Your task to perform on an android device: snooze an email in the gmail app Image 0: 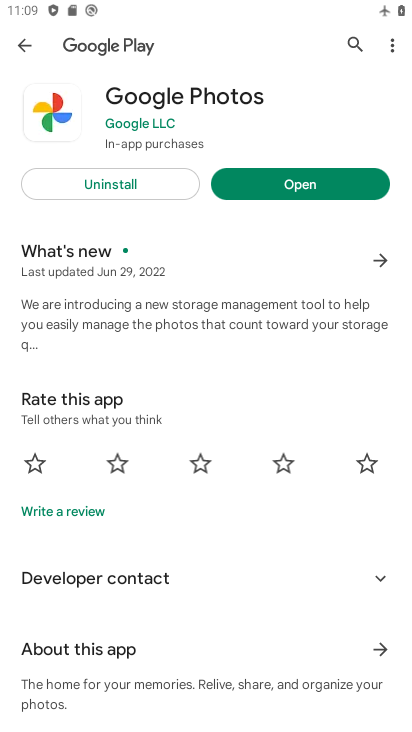
Step 0: press home button
Your task to perform on an android device: snooze an email in the gmail app Image 1: 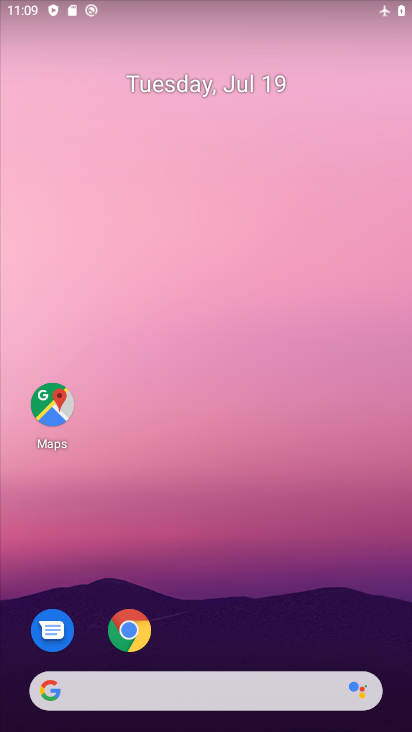
Step 1: drag from (203, 621) to (199, 244)
Your task to perform on an android device: snooze an email in the gmail app Image 2: 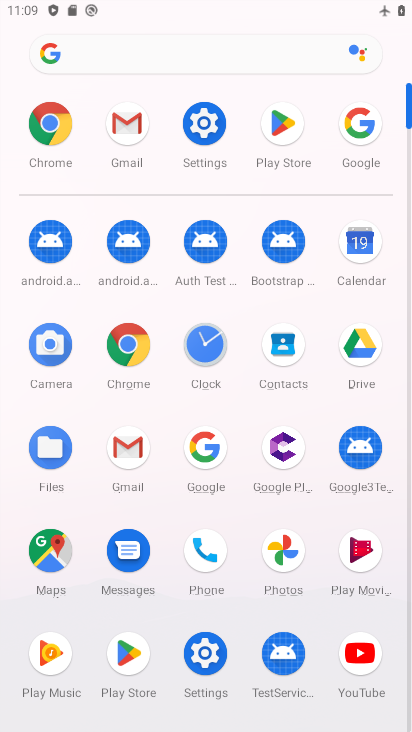
Step 2: click (129, 131)
Your task to perform on an android device: snooze an email in the gmail app Image 3: 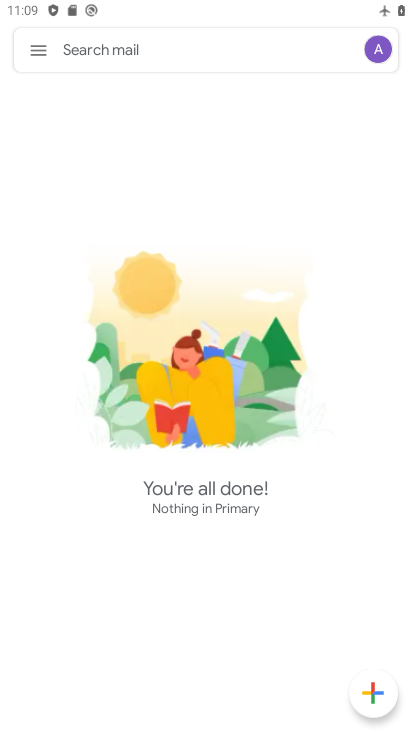
Step 3: task complete